Your task to perform on an android device: Go to settings Image 0: 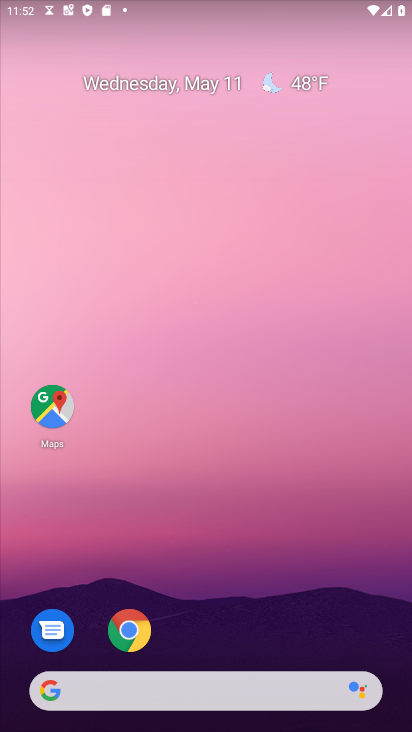
Step 0: drag from (228, 725) to (228, 232)
Your task to perform on an android device: Go to settings Image 1: 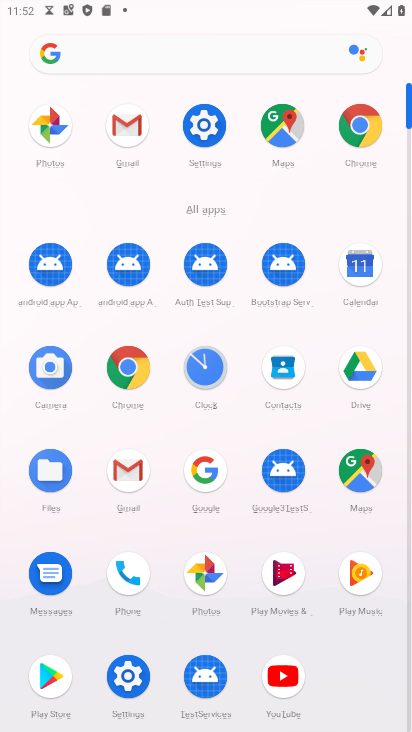
Step 1: click (198, 131)
Your task to perform on an android device: Go to settings Image 2: 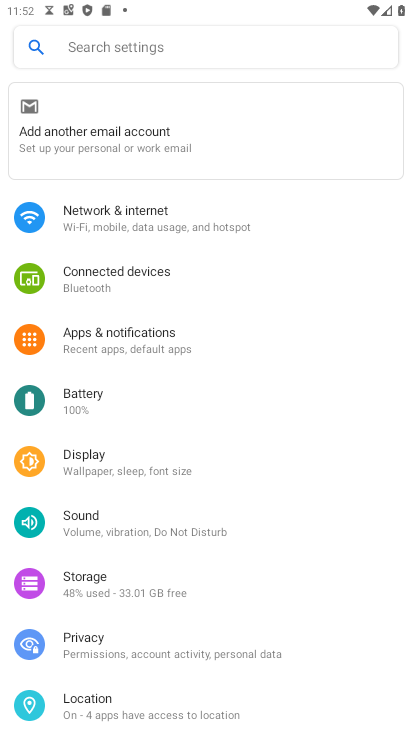
Step 2: task complete